Your task to perform on an android device: see tabs open on other devices in the chrome app Image 0: 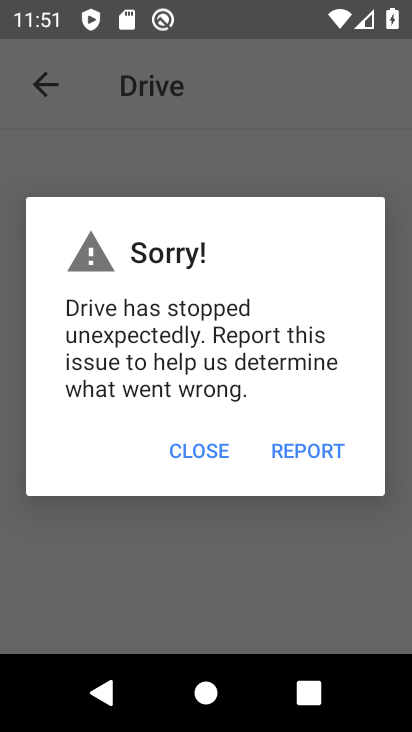
Step 0: press home button
Your task to perform on an android device: see tabs open on other devices in the chrome app Image 1: 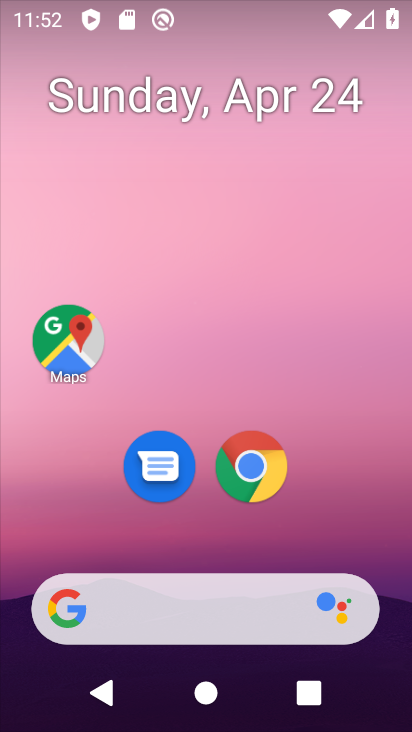
Step 1: click (260, 475)
Your task to perform on an android device: see tabs open on other devices in the chrome app Image 2: 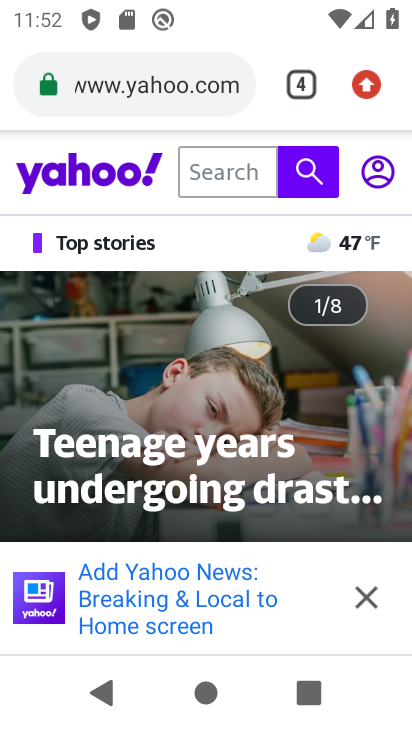
Step 2: click (303, 81)
Your task to perform on an android device: see tabs open on other devices in the chrome app Image 3: 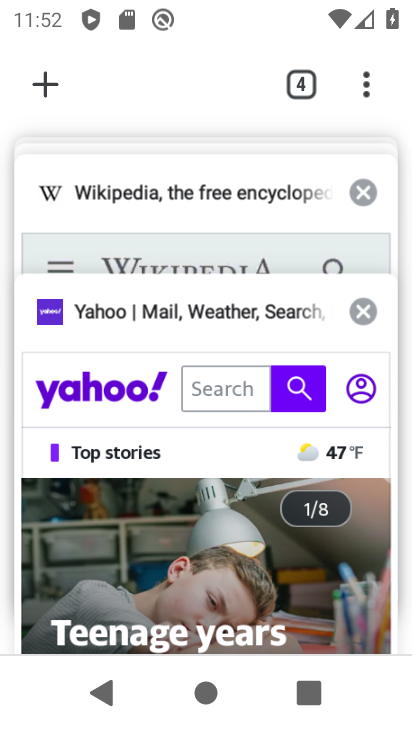
Step 3: click (43, 74)
Your task to perform on an android device: see tabs open on other devices in the chrome app Image 4: 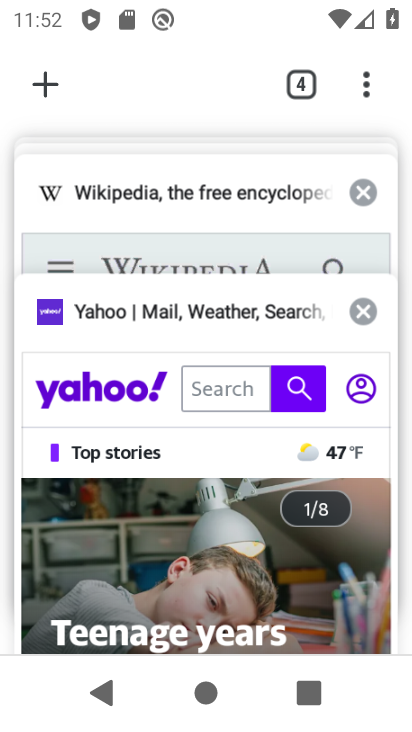
Step 4: click (33, 86)
Your task to perform on an android device: see tabs open on other devices in the chrome app Image 5: 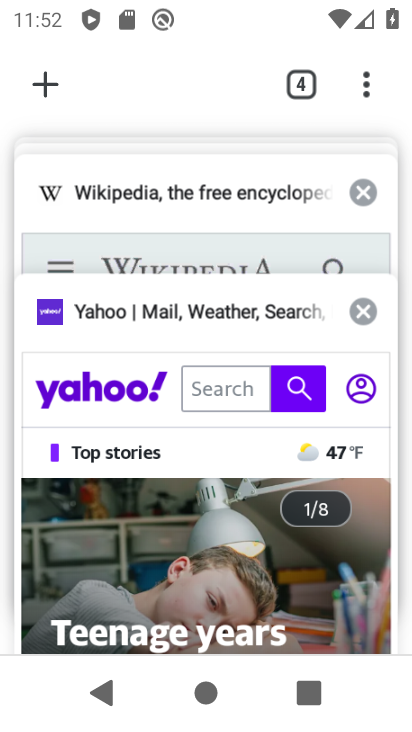
Step 5: click (47, 72)
Your task to perform on an android device: see tabs open on other devices in the chrome app Image 6: 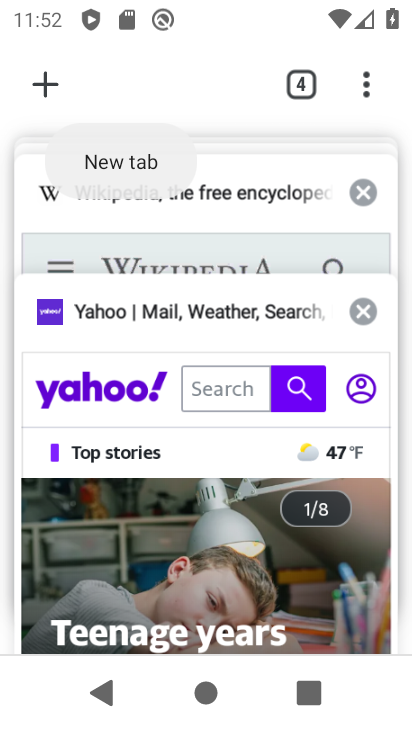
Step 6: click (52, 78)
Your task to perform on an android device: see tabs open on other devices in the chrome app Image 7: 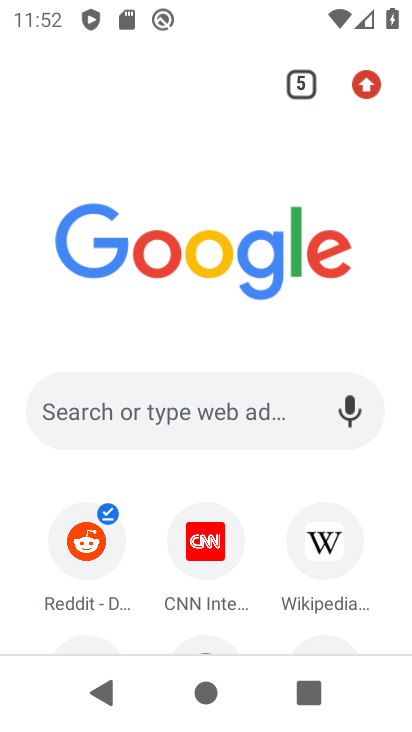
Step 7: task complete